Your task to perform on an android device: Open Google Maps and go to "Timeline" Image 0: 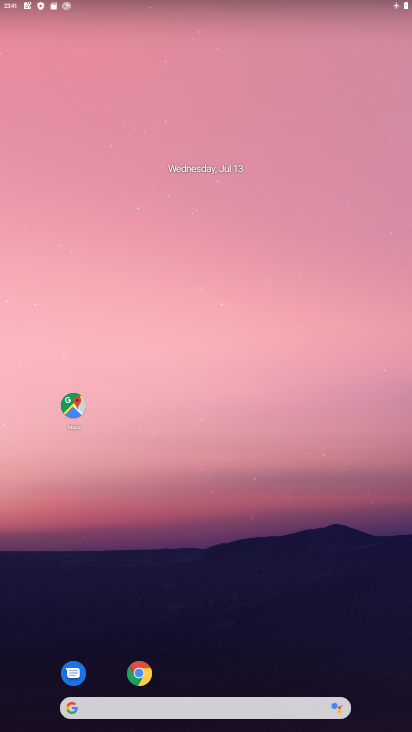
Step 0: click (89, 405)
Your task to perform on an android device: Open Google Maps and go to "Timeline" Image 1: 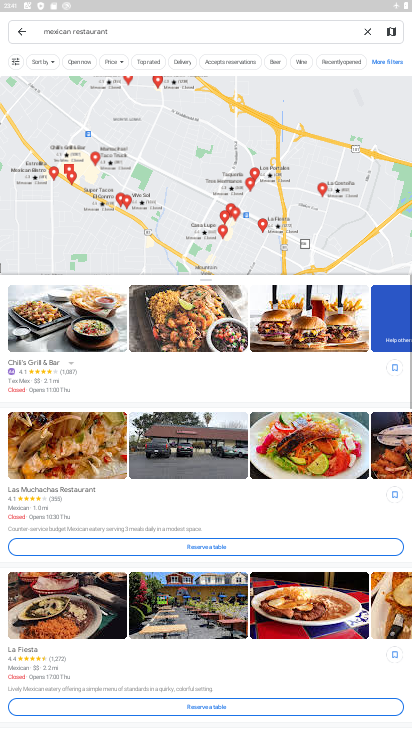
Step 1: click (22, 31)
Your task to perform on an android device: Open Google Maps and go to "Timeline" Image 2: 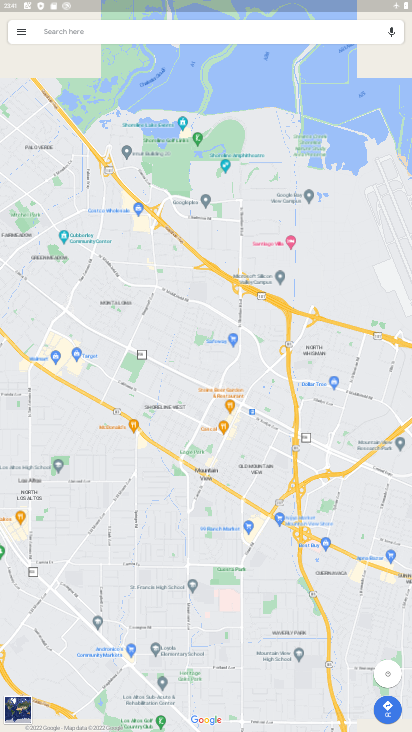
Step 2: click (22, 31)
Your task to perform on an android device: Open Google Maps and go to "Timeline" Image 3: 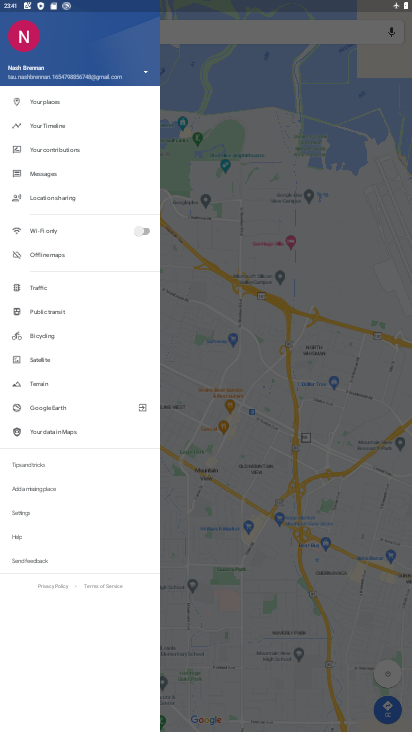
Step 3: click (79, 120)
Your task to perform on an android device: Open Google Maps and go to "Timeline" Image 4: 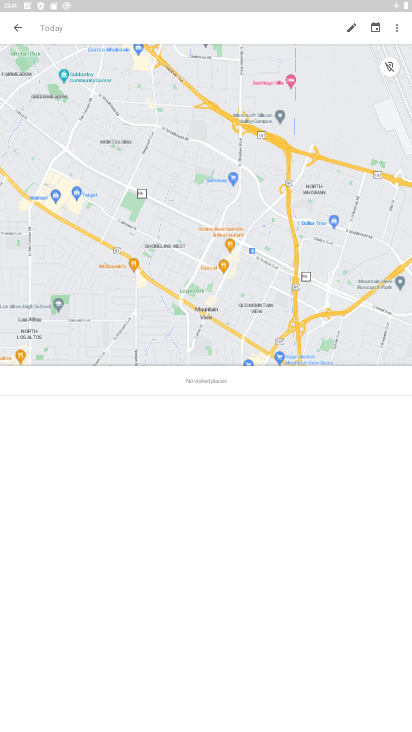
Step 4: task complete